Your task to perform on an android device: check google app version Image 0: 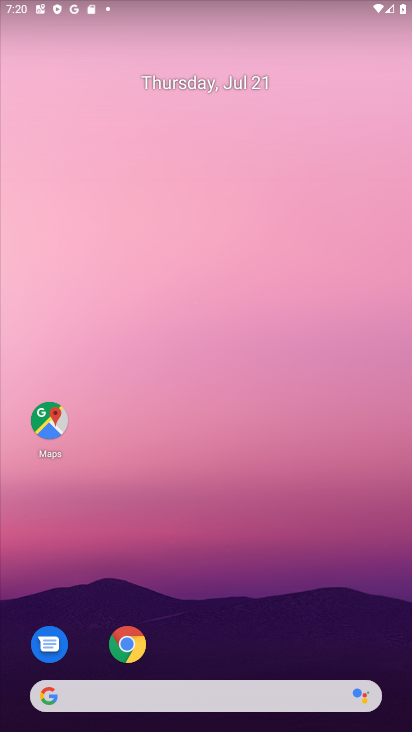
Step 0: click (264, 700)
Your task to perform on an android device: check google app version Image 1: 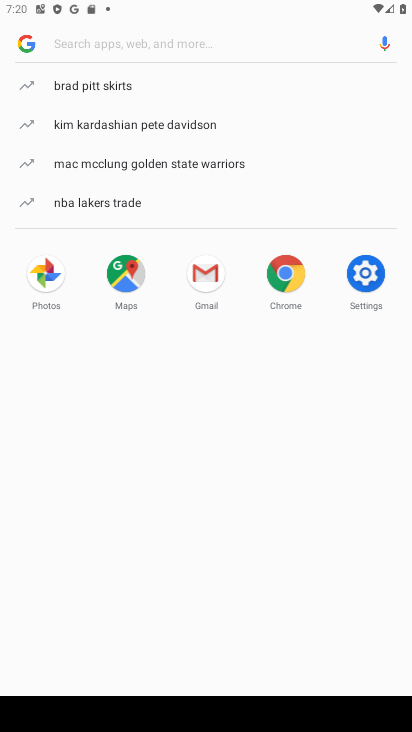
Step 1: click (28, 37)
Your task to perform on an android device: check google app version Image 2: 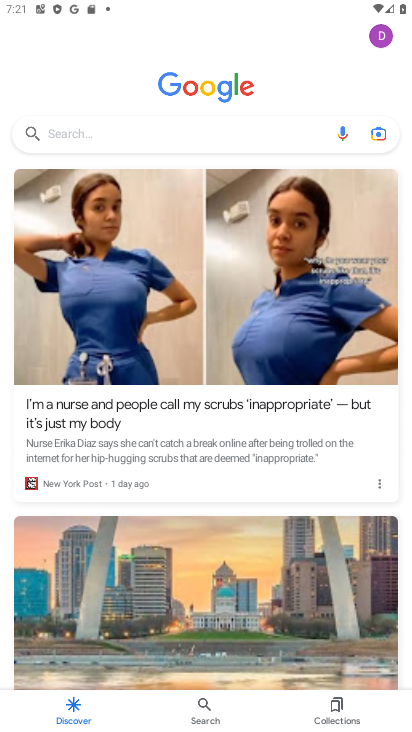
Step 2: click (381, 39)
Your task to perform on an android device: check google app version Image 3: 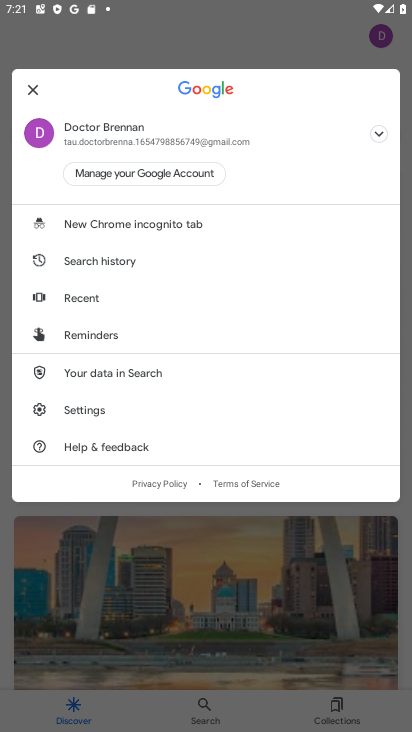
Step 3: click (115, 418)
Your task to perform on an android device: check google app version Image 4: 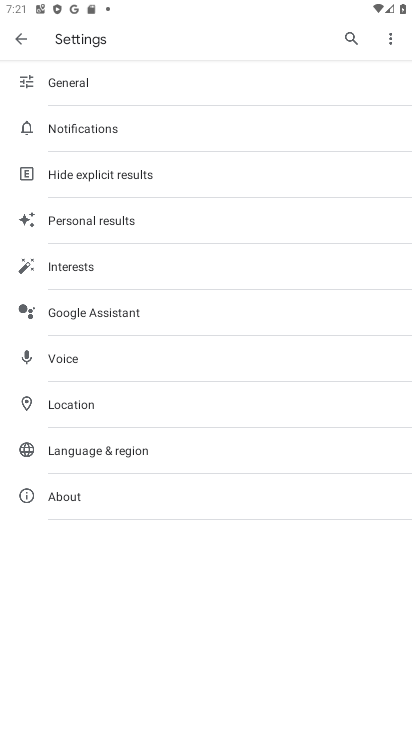
Step 4: click (55, 502)
Your task to perform on an android device: check google app version Image 5: 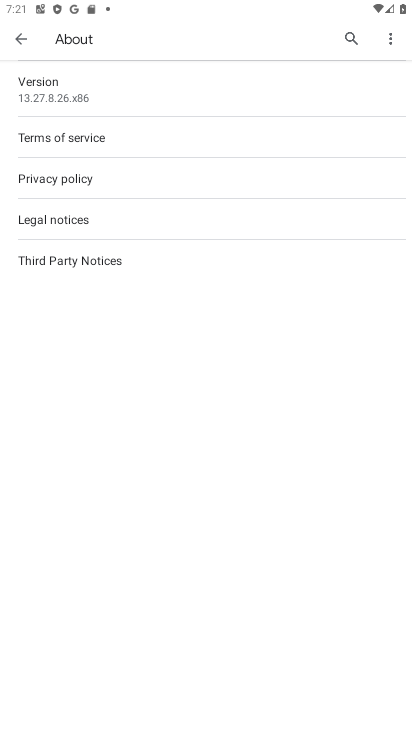
Step 5: task complete